Your task to perform on an android device: Go to network settings Image 0: 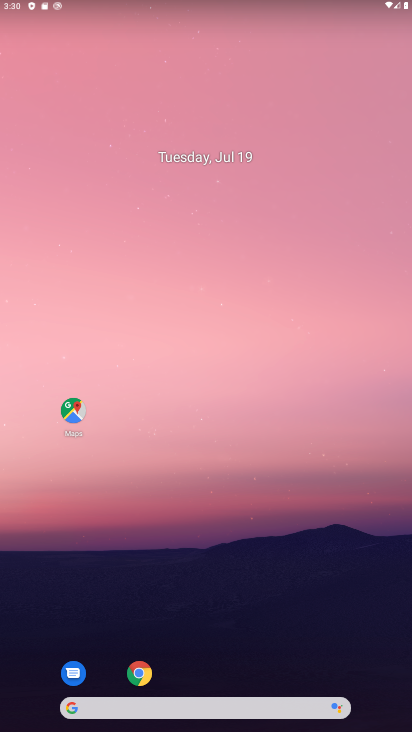
Step 0: drag from (303, 636) to (274, 137)
Your task to perform on an android device: Go to network settings Image 1: 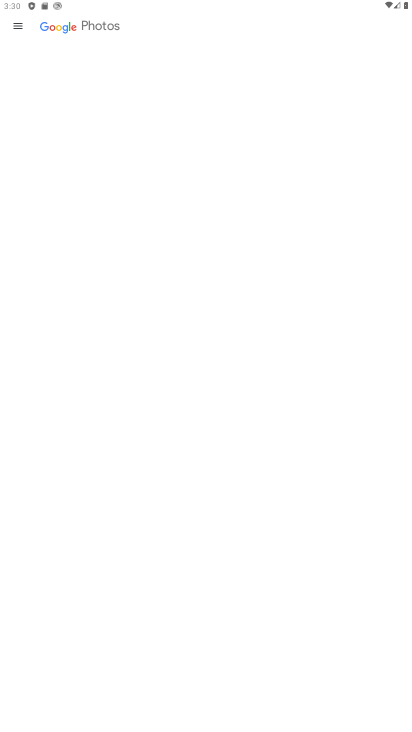
Step 1: click (126, 81)
Your task to perform on an android device: Go to network settings Image 2: 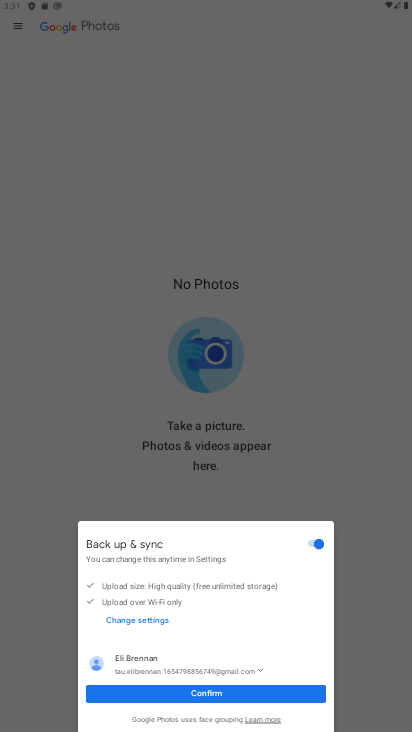
Step 2: press home button
Your task to perform on an android device: Go to network settings Image 3: 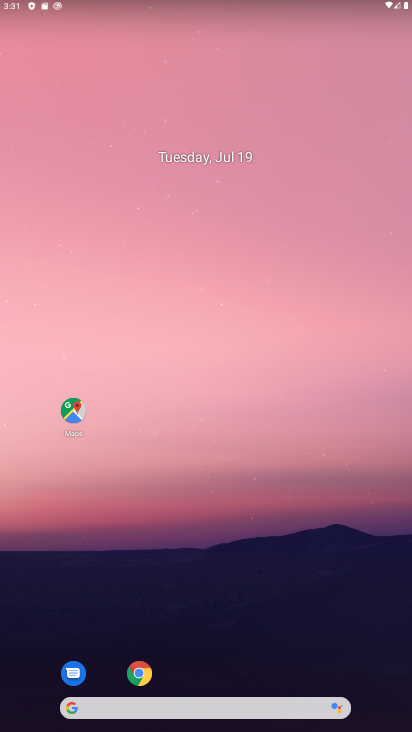
Step 3: drag from (209, 159) to (215, 29)
Your task to perform on an android device: Go to network settings Image 4: 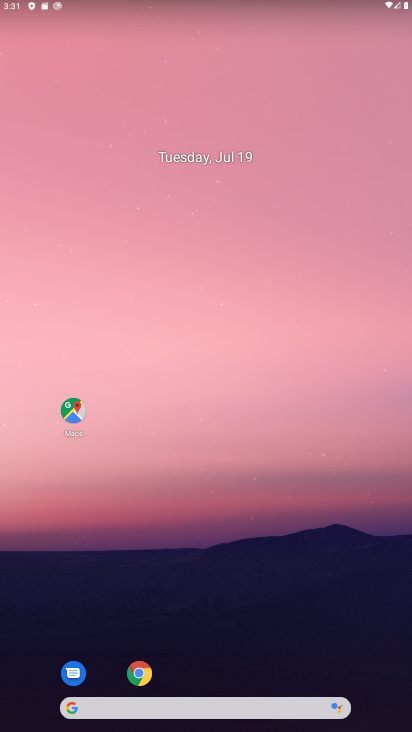
Step 4: drag from (268, 669) to (287, 70)
Your task to perform on an android device: Go to network settings Image 5: 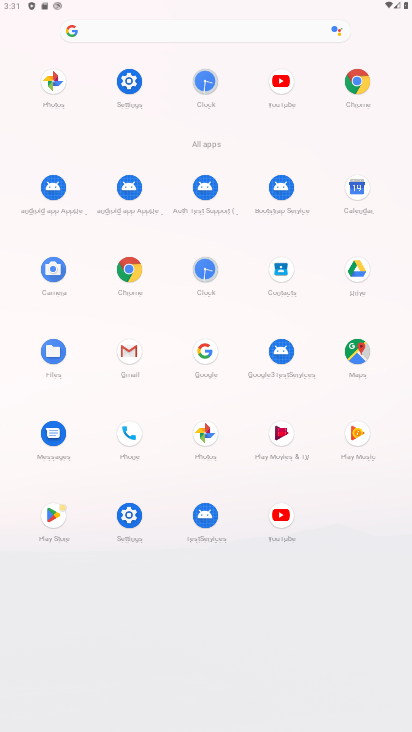
Step 5: click (125, 73)
Your task to perform on an android device: Go to network settings Image 6: 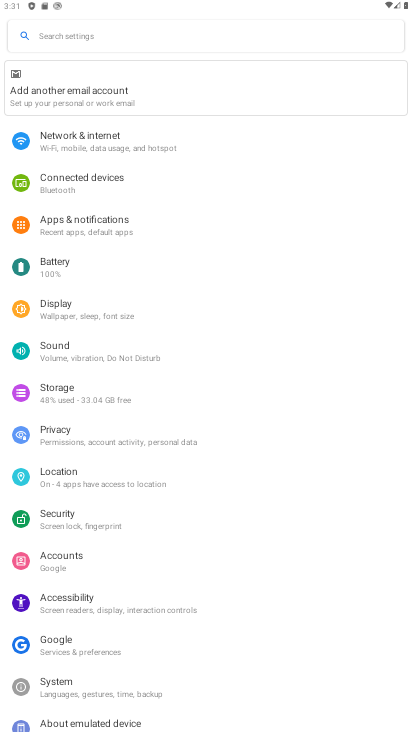
Step 6: click (106, 132)
Your task to perform on an android device: Go to network settings Image 7: 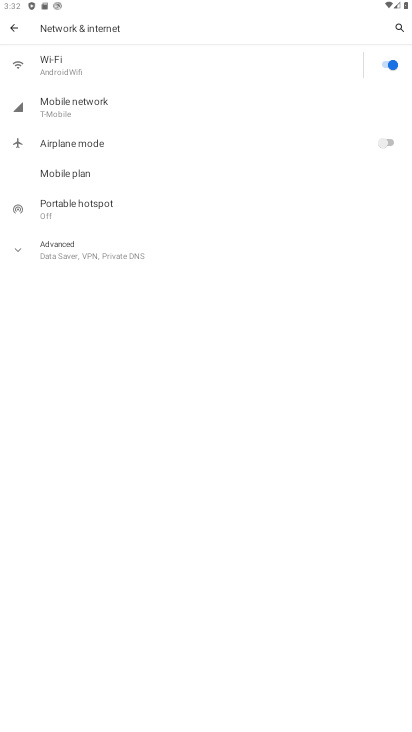
Step 7: task complete